Your task to perform on an android device: Search for top rated burger restaurants on Maps Image 0: 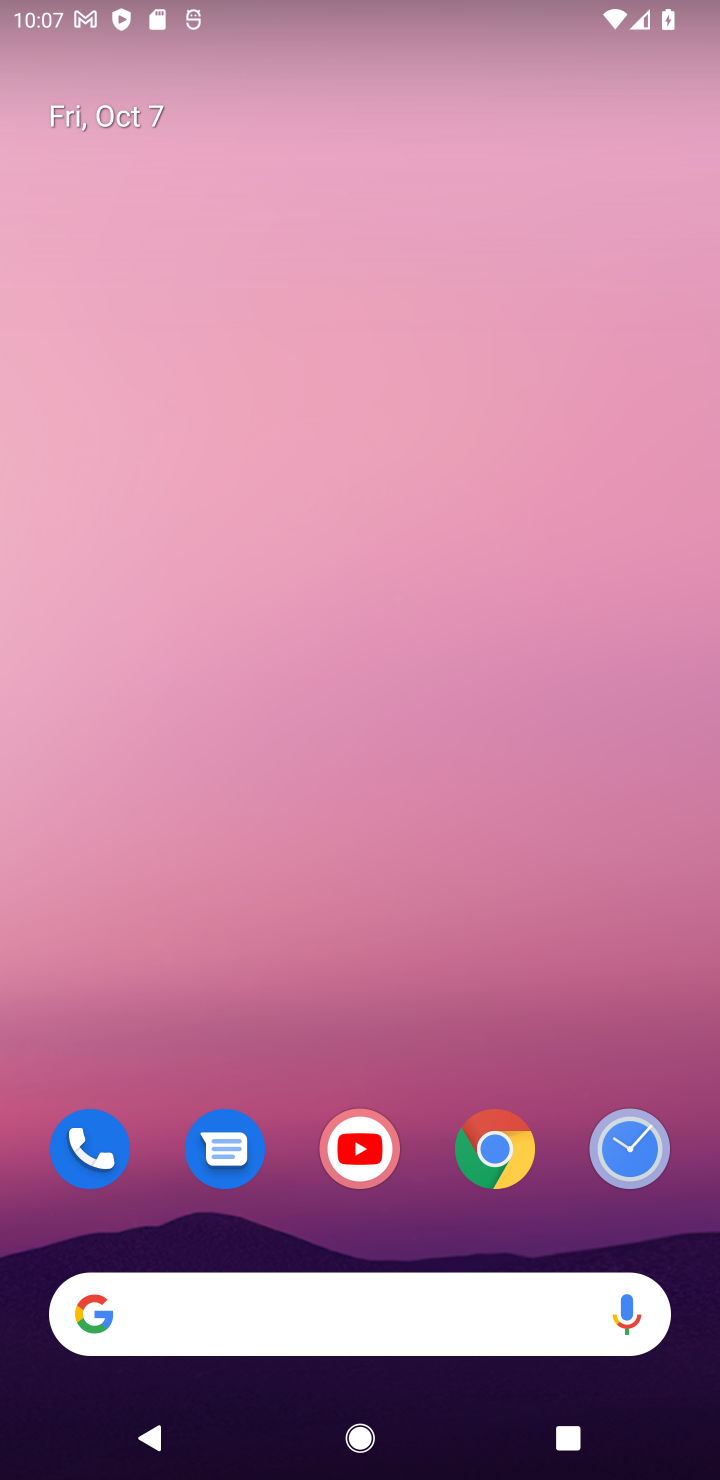
Step 0: drag from (318, 1230) to (250, 234)
Your task to perform on an android device: Search for top rated burger restaurants on Maps Image 1: 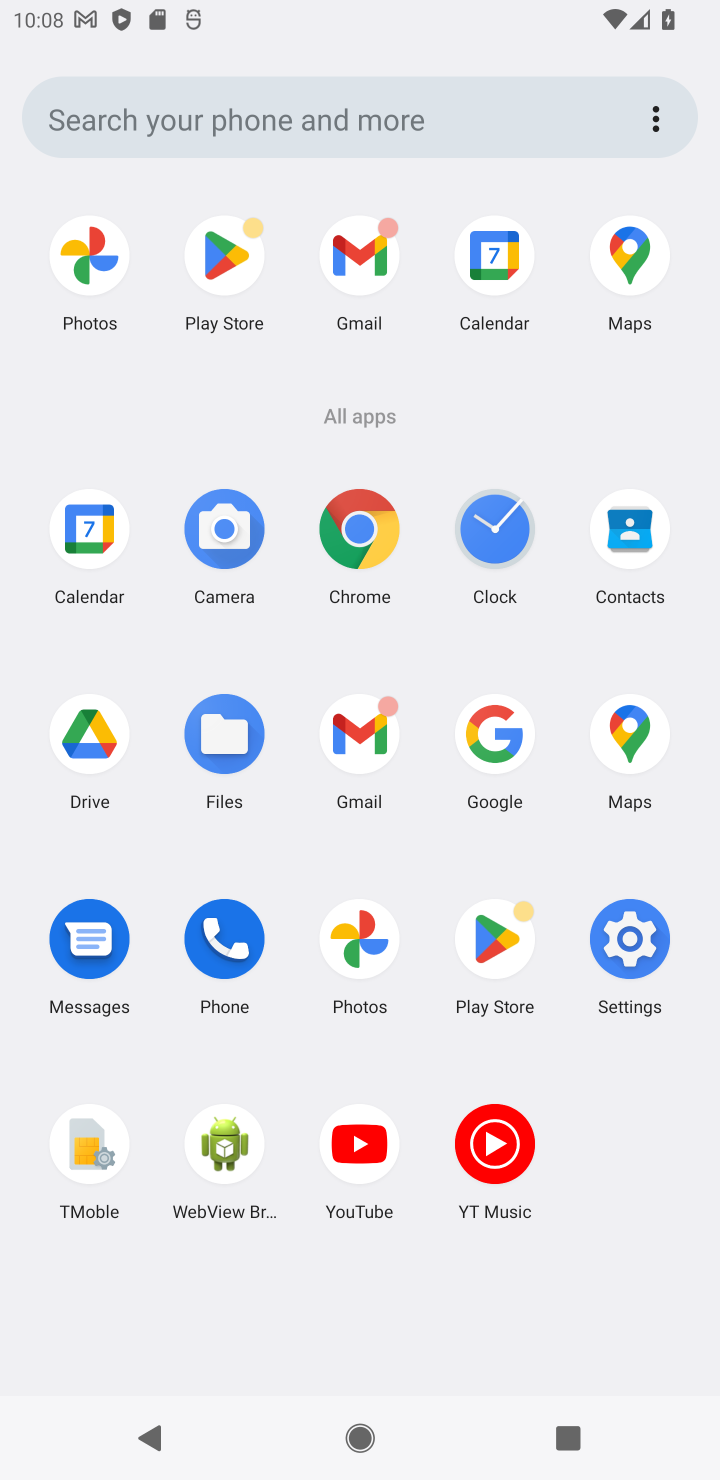
Step 1: click (623, 283)
Your task to perform on an android device: Search for top rated burger restaurants on Maps Image 2: 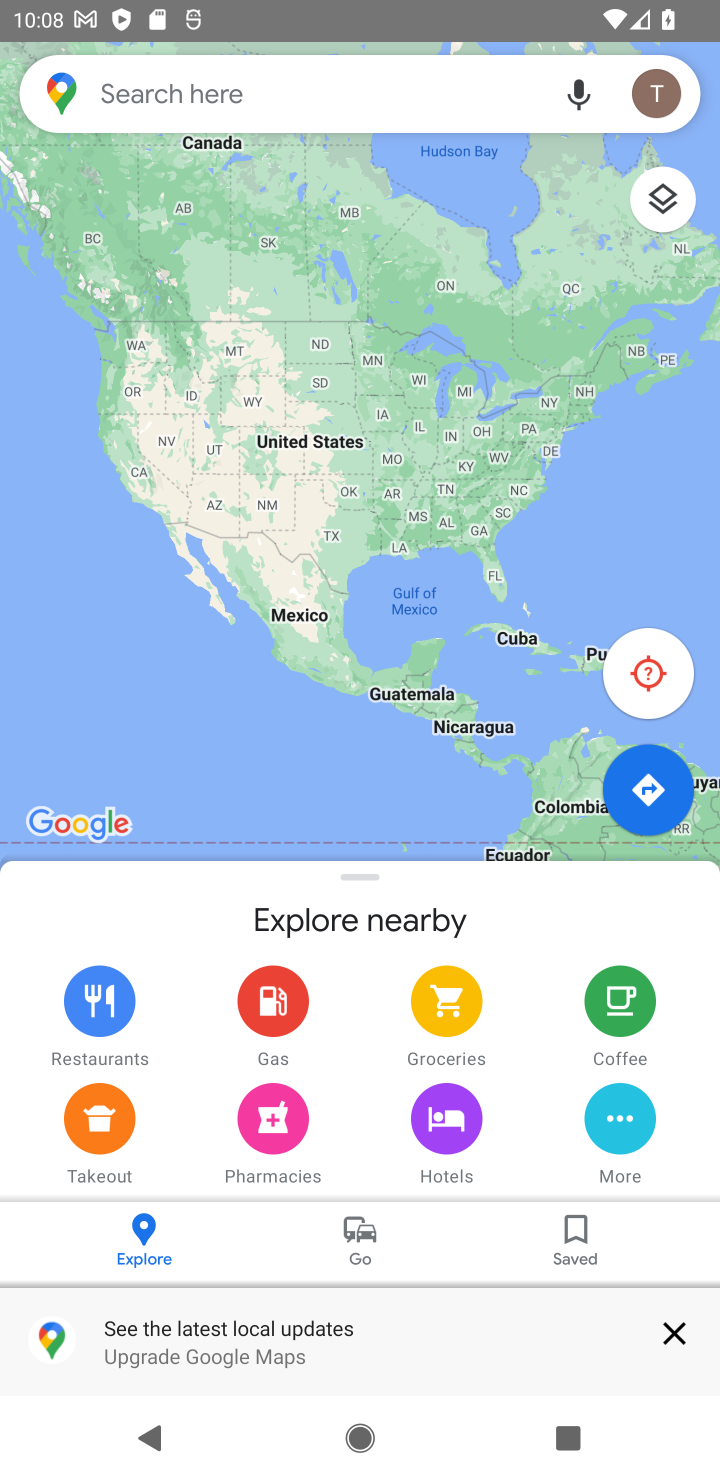
Step 2: click (305, 92)
Your task to perform on an android device: Search for top rated burger restaurants on Maps Image 3: 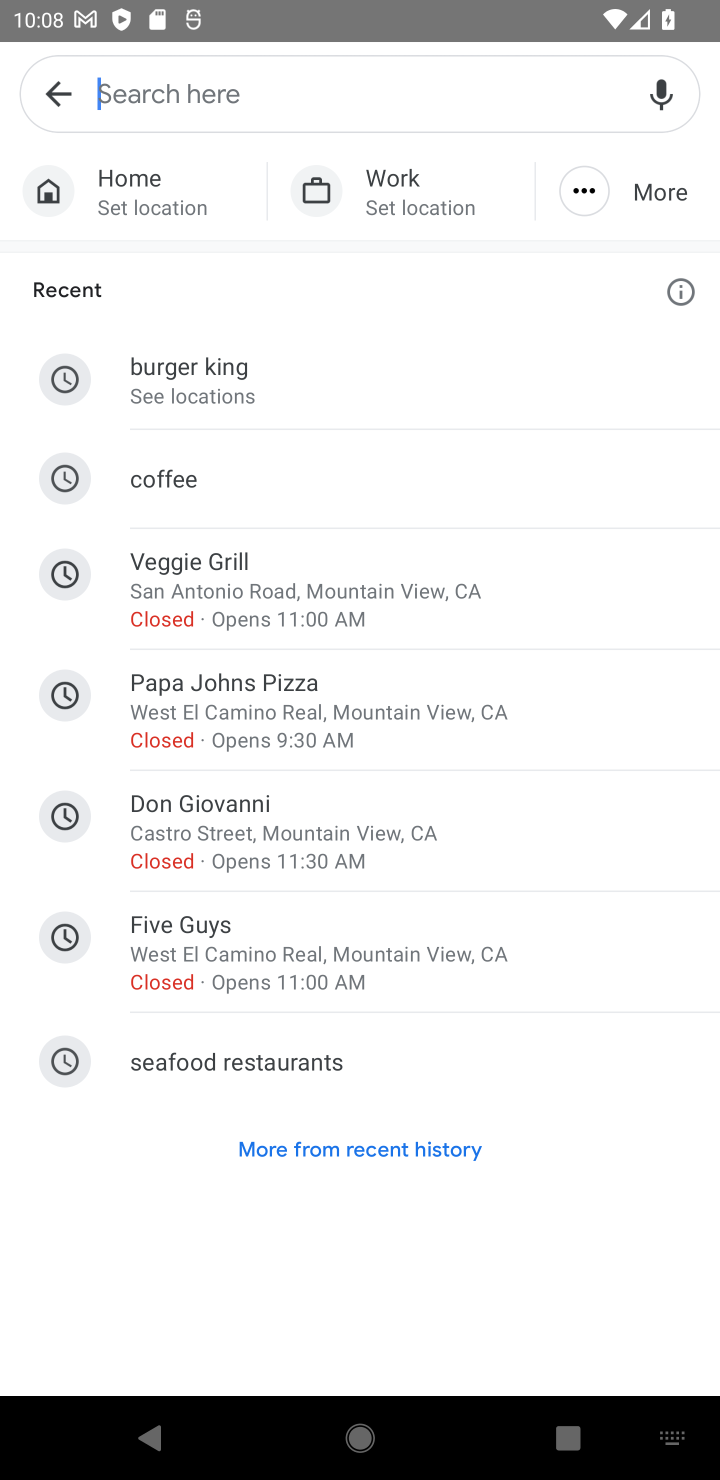
Step 3: type "Search for top rated burger restaurants on Maps"
Your task to perform on an android device: Search for top rated burger restaurants on Maps Image 4: 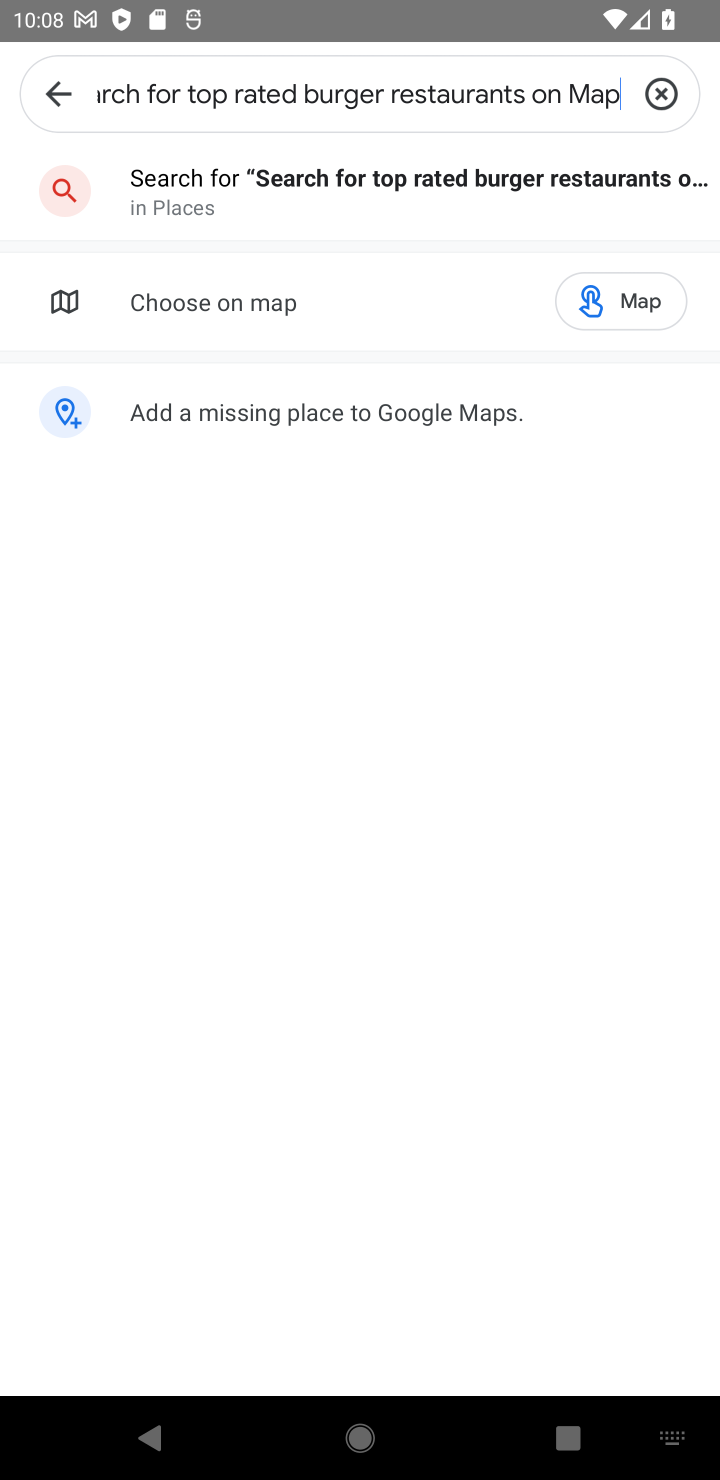
Step 4: click (263, 398)
Your task to perform on an android device: Search for top rated burger restaurants on Maps Image 5: 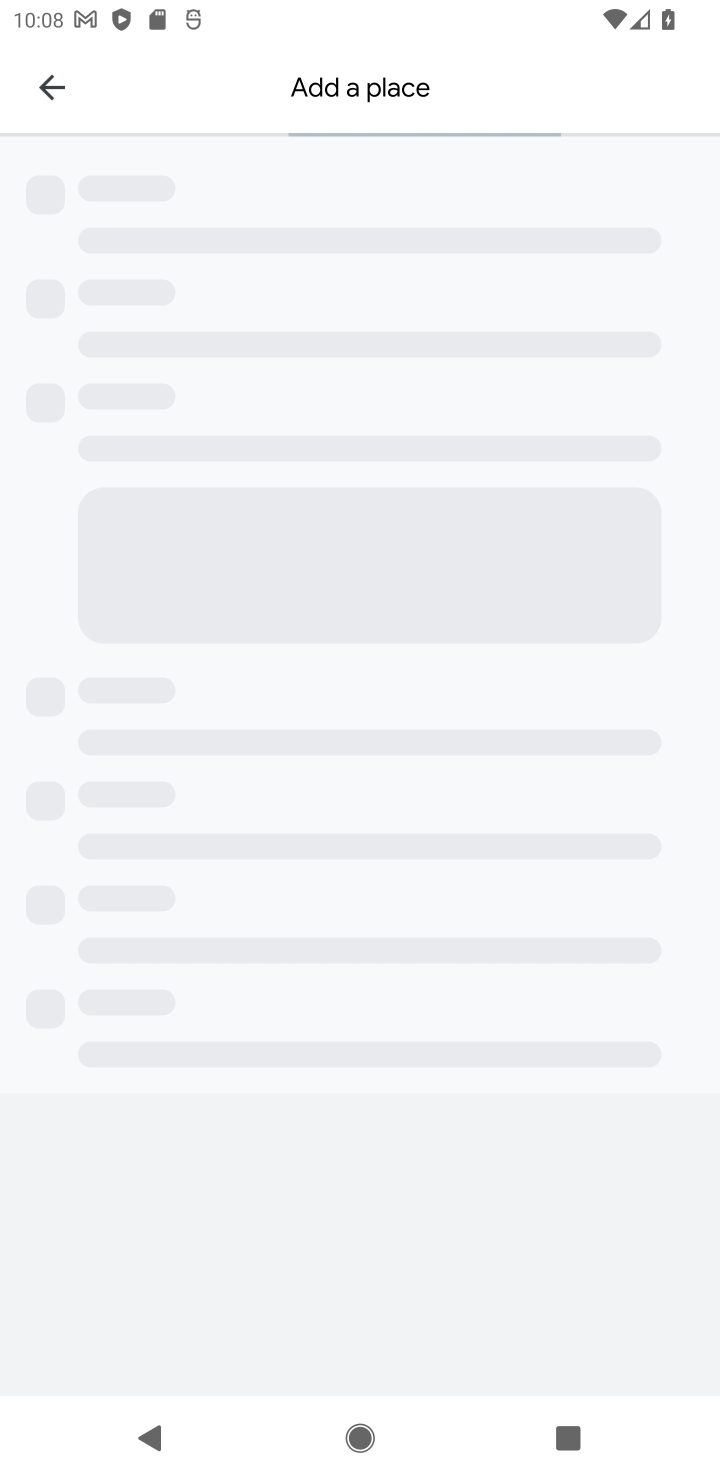
Step 5: task complete